Your task to perform on an android device: open app "Upside-Cash back on gas & food" (install if not already installed) and enter user name: "transatlantic@gmail.com" and password: "experiences" Image 0: 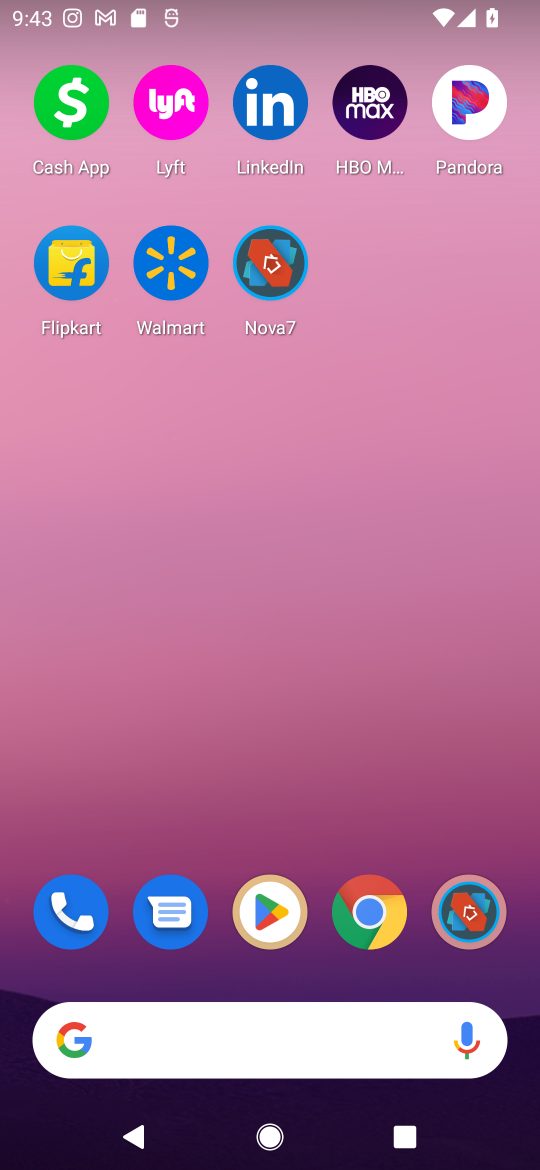
Step 0: click (259, 927)
Your task to perform on an android device: open app "Upside-Cash back on gas & food" (install if not already installed) and enter user name: "transatlantic@gmail.com" and password: "experiences" Image 1: 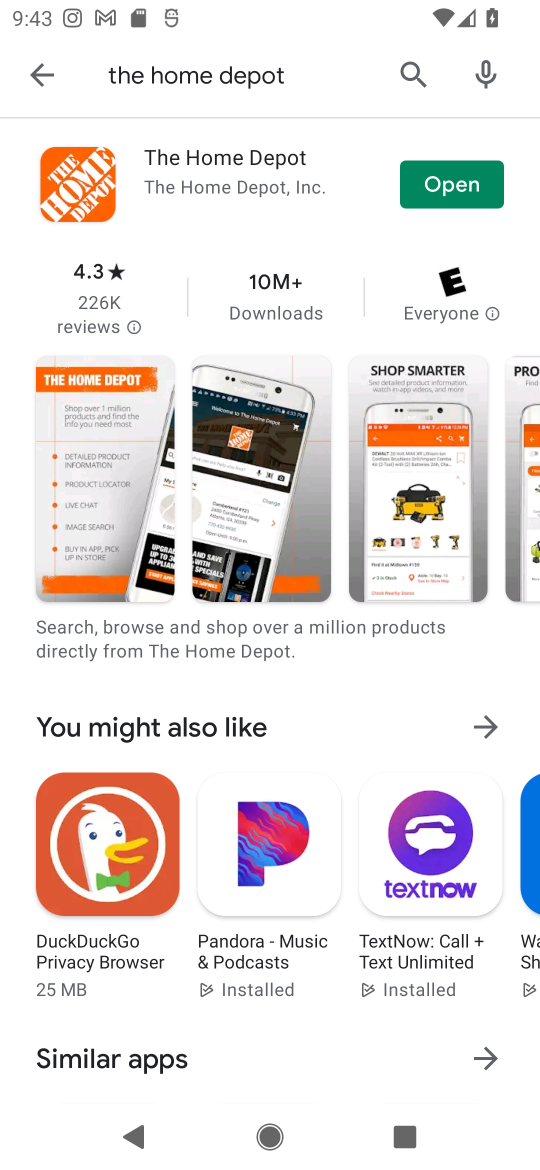
Step 1: click (469, 180)
Your task to perform on an android device: open app "Upside-Cash back on gas & food" (install if not already installed) and enter user name: "transatlantic@gmail.com" and password: "experiences" Image 2: 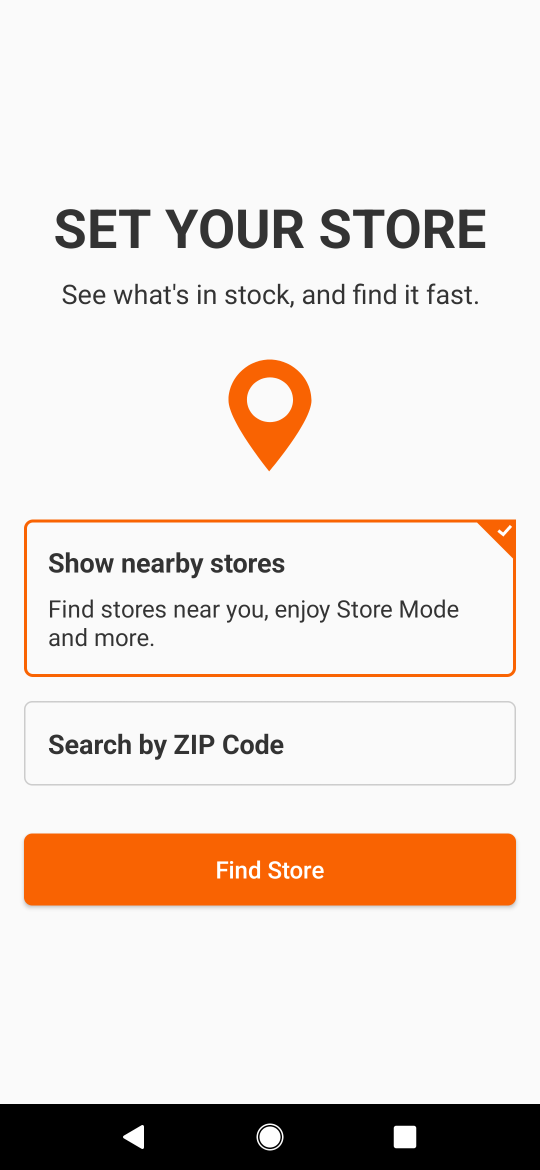
Step 2: press home button
Your task to perform on an android device: open app "Upside-Cash back on gas & food" (install if not already installed) and enter user name: "transatlantic@gmail.com" and password: "experiences" Image 3: 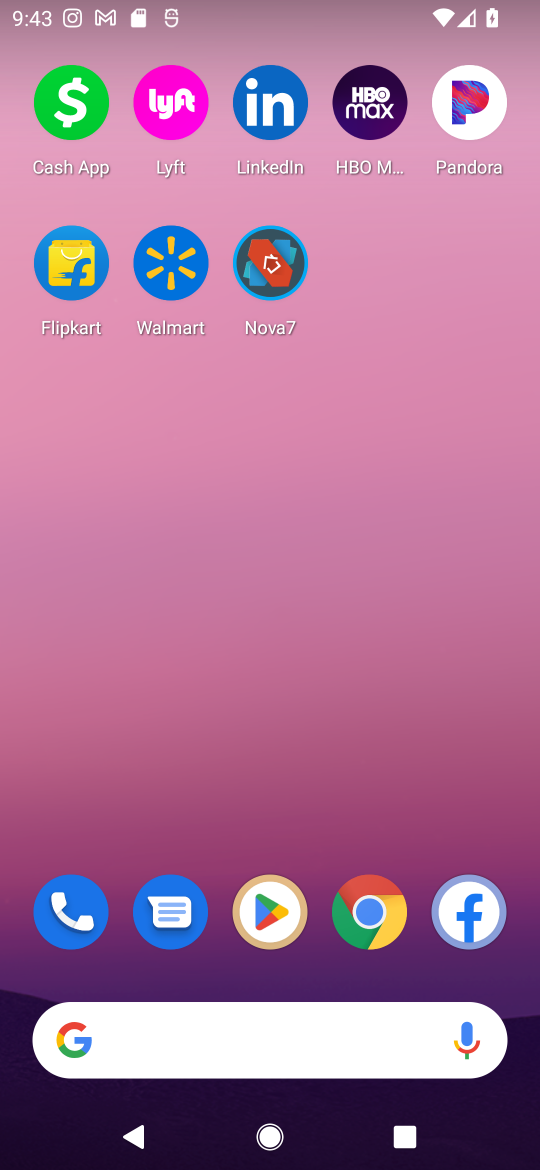
Step 3: click (271, 904)
Your task to perform on an android device: open app "Upside-Cash back on gas & food" (install if not already installed) and enter user name: "transatlantic@gmail.com" and password: "experiences" Image 4: 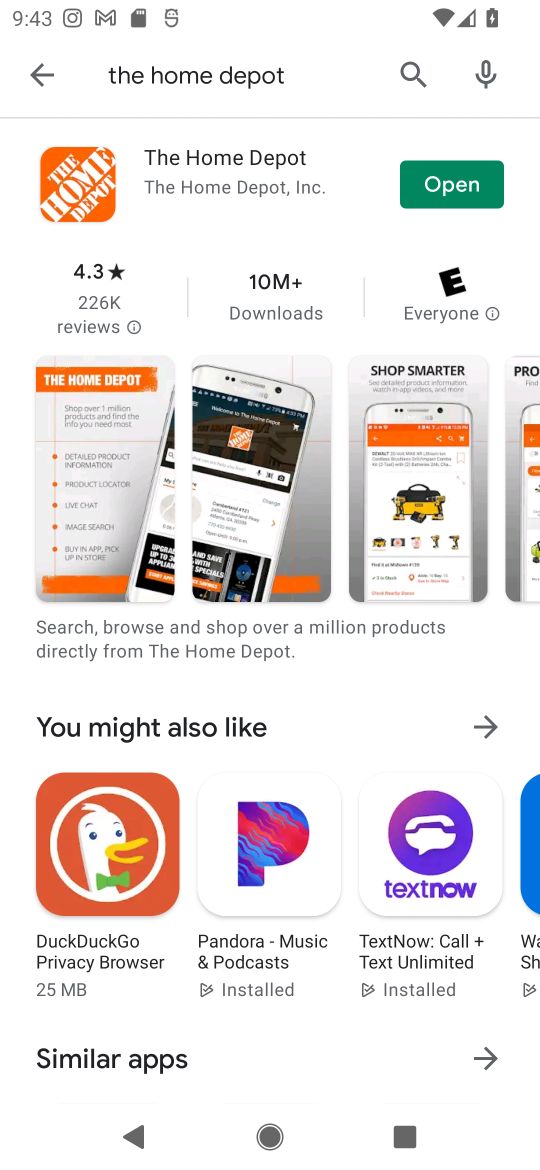
Step 4: click (404, 66)
Your task to perform on an android device: open app "Upside-Cash back on gas & food" (install if not already installed) and enter user name: "transatlantic@gmail.com" and password: "experiences" Image 5: 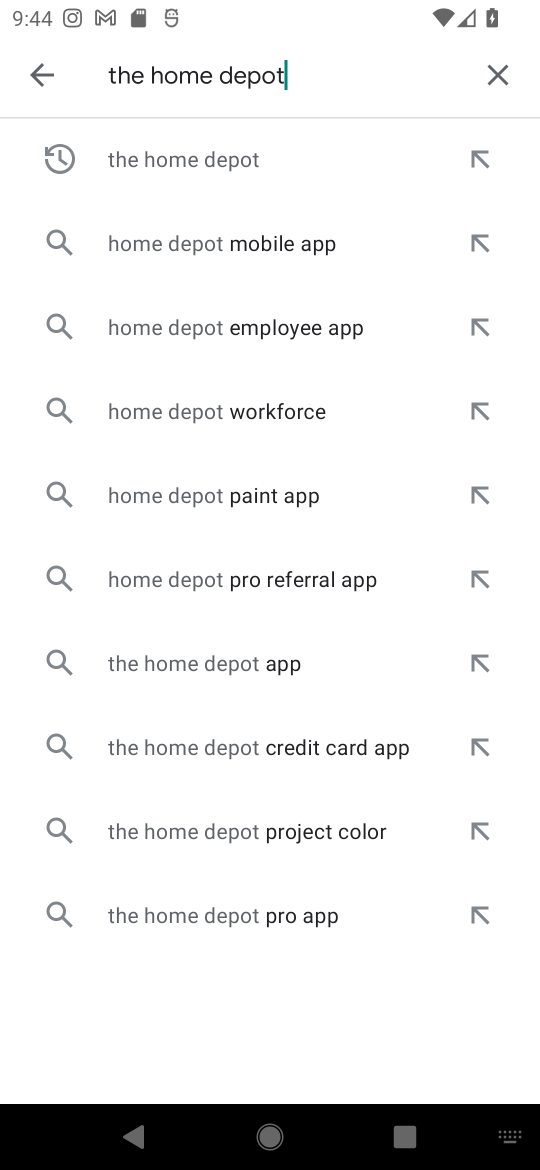
Step 5: click (494, 64)
Your task to perform on an android device: open app "Upside-Cash back on gas & food" (install if not already installed) and enter user name: "transatlantic@gmail.com" and password: "experiences" Image 6: 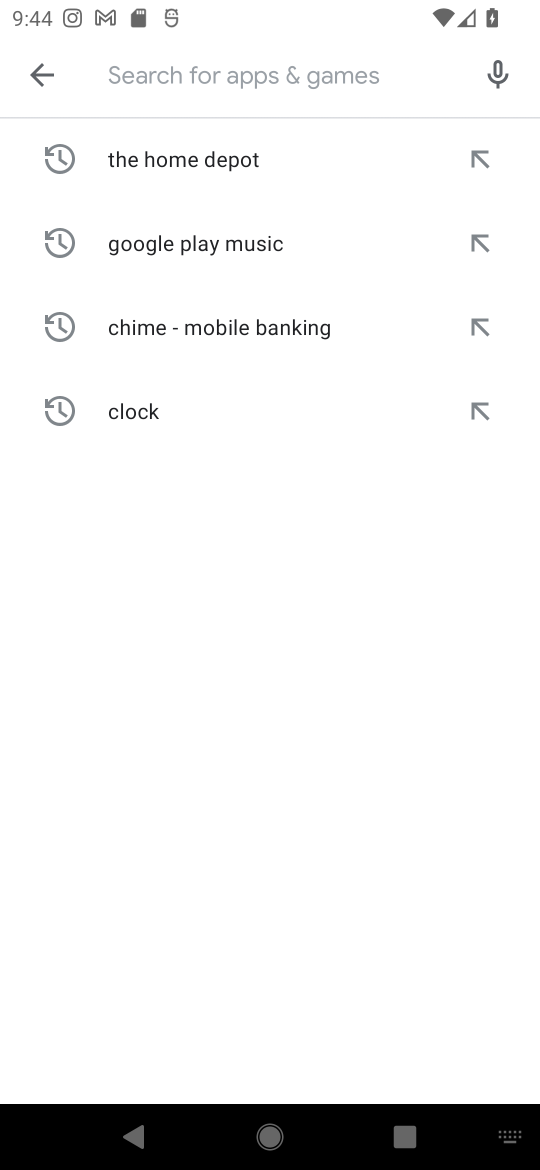
Step 6: type "Upside-Cash back on gas & food"
Your task to perform on an android device: open app "Upside-Cash back on gas & food" (install if not already installed) and enter user name: "transatlantic@gmail.com" and password: "experiences" Image 7: 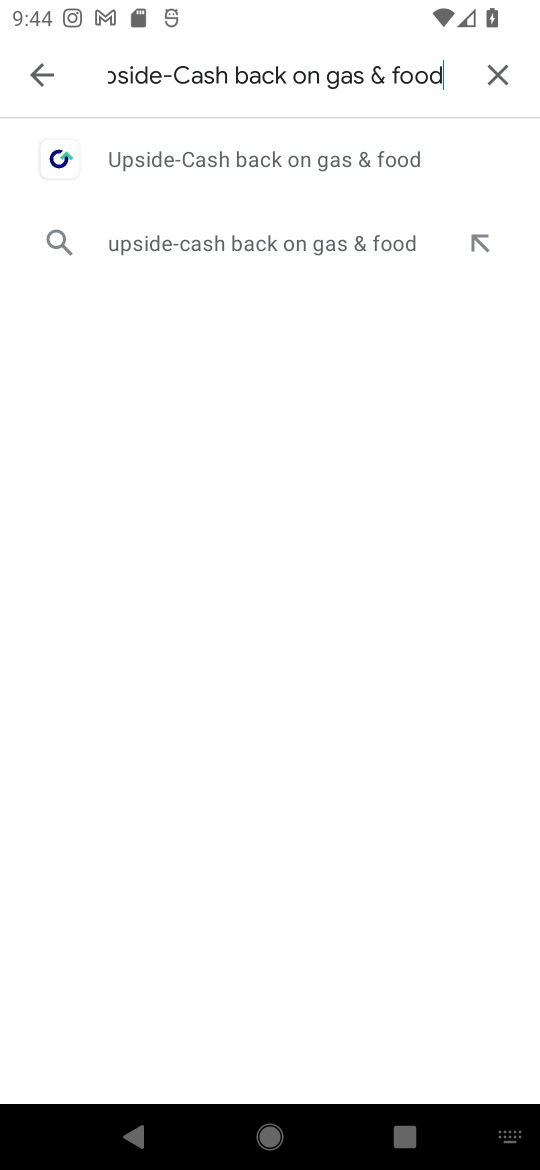
Step 7: click (396, 154)
Your task to perform on an android device: open app "Upside-Cash back on gas & food" (install if not already installed) and enter user name: "transatlantic@gmail.com" and password: "experiences" Image 8: 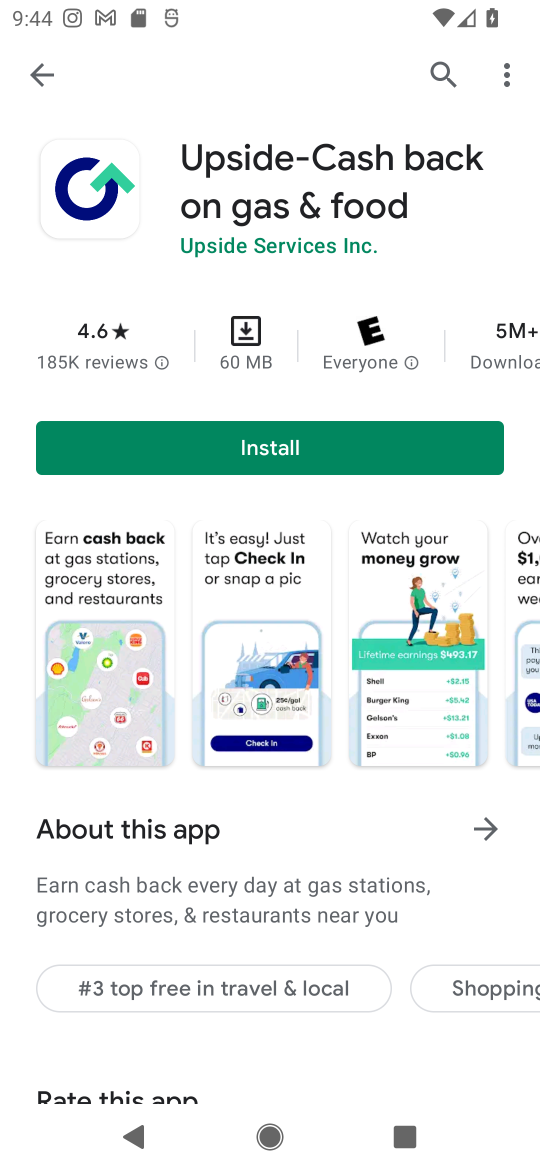
Step 8: click (266, 443)
Your task to perform on an android device: open app "Upside-Cash back on gas & food" (install if not already installed) and enter user name: "transatlantic@gmail.com" and password: "experiences" Image 9: 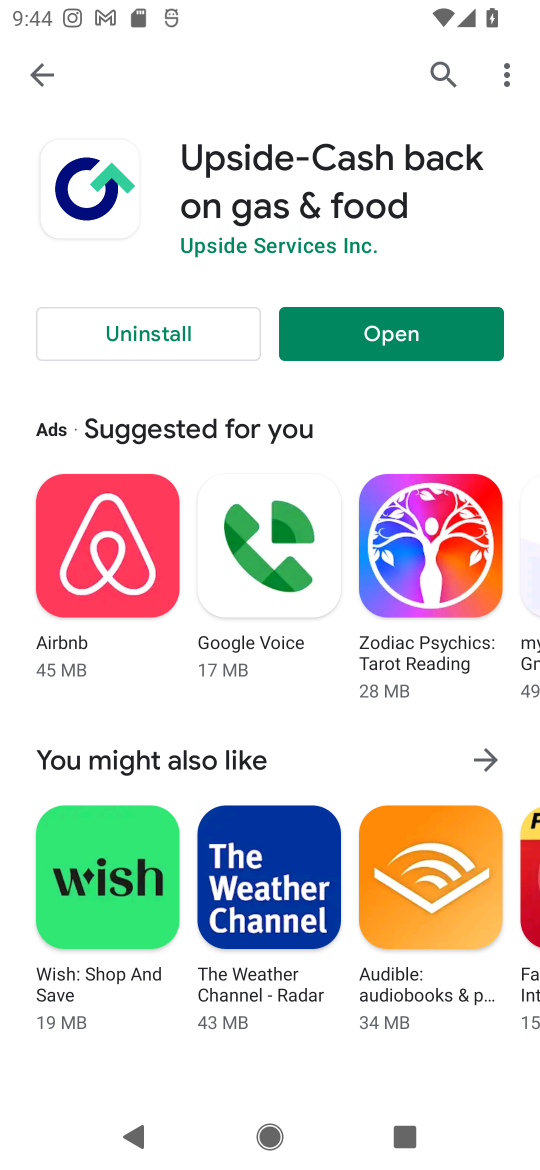
Step 9: click (365, 332)
Your task to perform on an android device: open app "Upside-Cash back on gas & food" (install if not already installed) and enter user name: "transatlantic@gmail.com" and password: "experiences" Image 10: 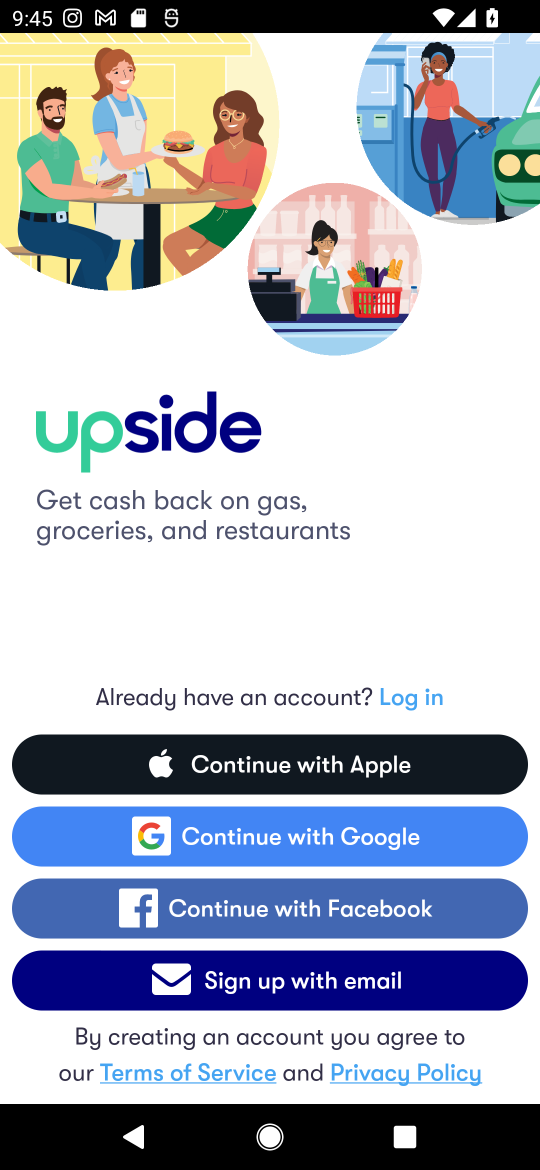
Step 10: click (269, 981)
Your task to perform on an android device: open app "Upside-Cash back on gas & food" (install if not already installed) and enter user name: "transatlantic@gmail.com" and password: "experiences" Image 11: 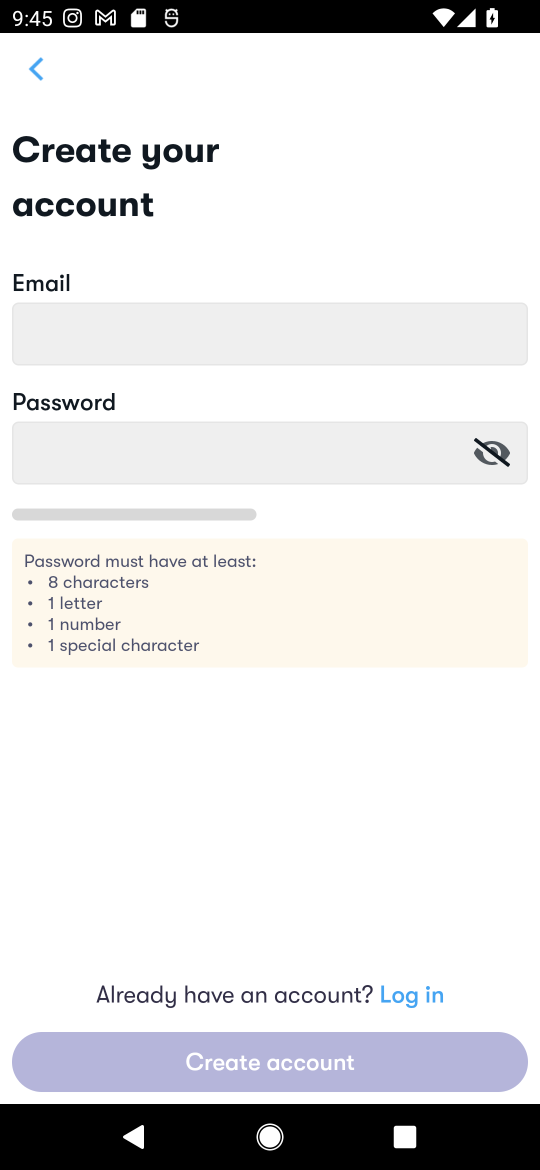
Step 11: click (127, 341)
Your task to perform on an android device: open app "Upside-Cash back on gas & food" (install if not already installed) and enter user name: "transatlantic@gmail.com" and password: "experiences" Image 12: 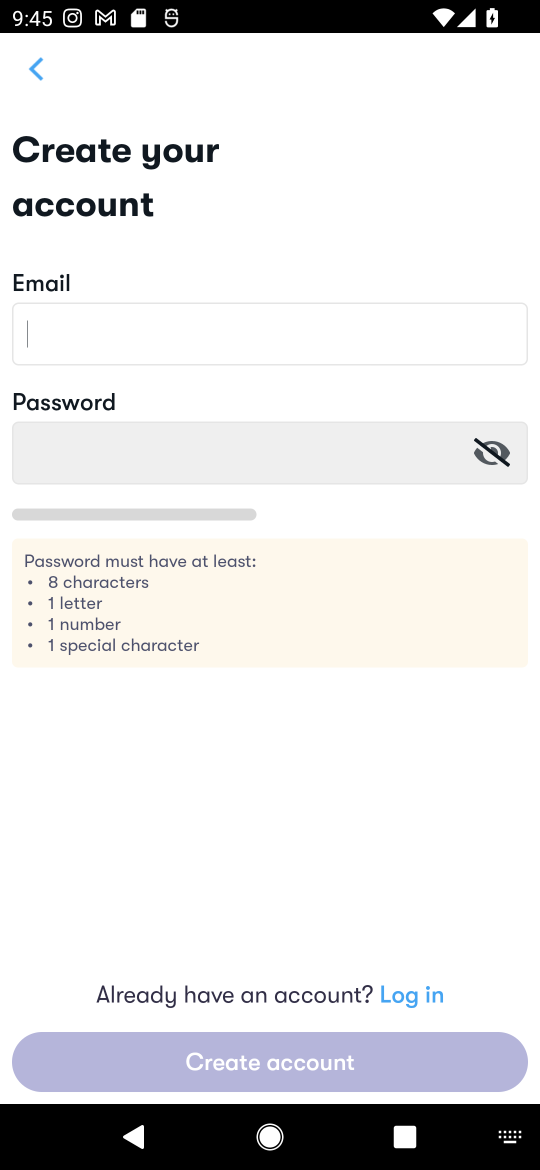
Step 12: type "transatlantic@gmail.com"
Your task to perform on an android device: open app "Upside-Cash back on gas & food" (install if not already installed) and enter user name: "transatlantic@gmail.com" and password: "experiences" Image 13: 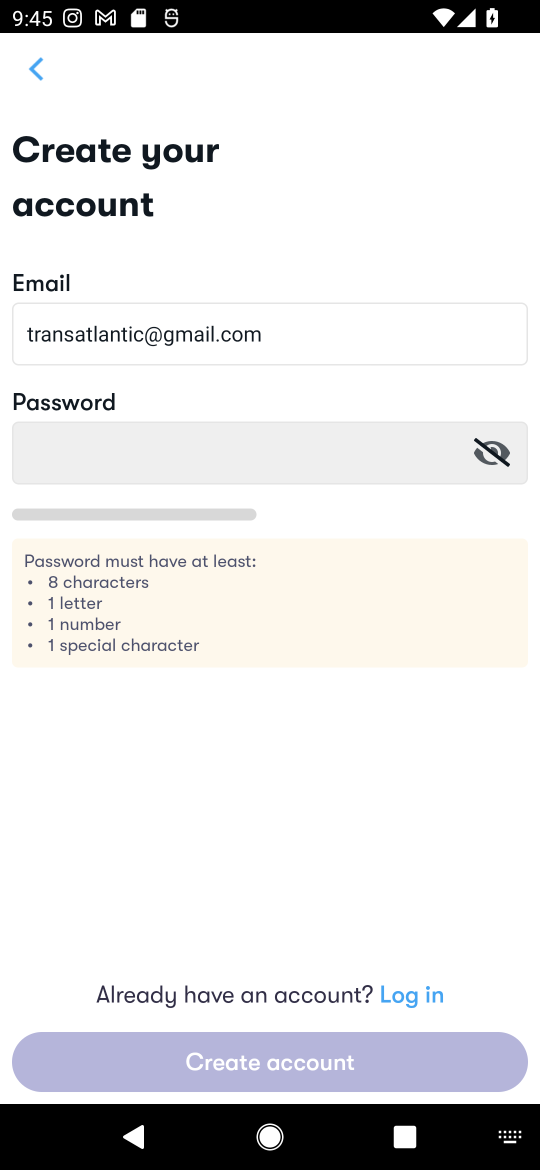
Step 13: click (133, 459)
Your task to perform on an android device: open app "Upside-Cash back on gas & food" (install if not already installed) and enter user name: "transatlantic@gmail.com" and password: "experiences" Image 14: 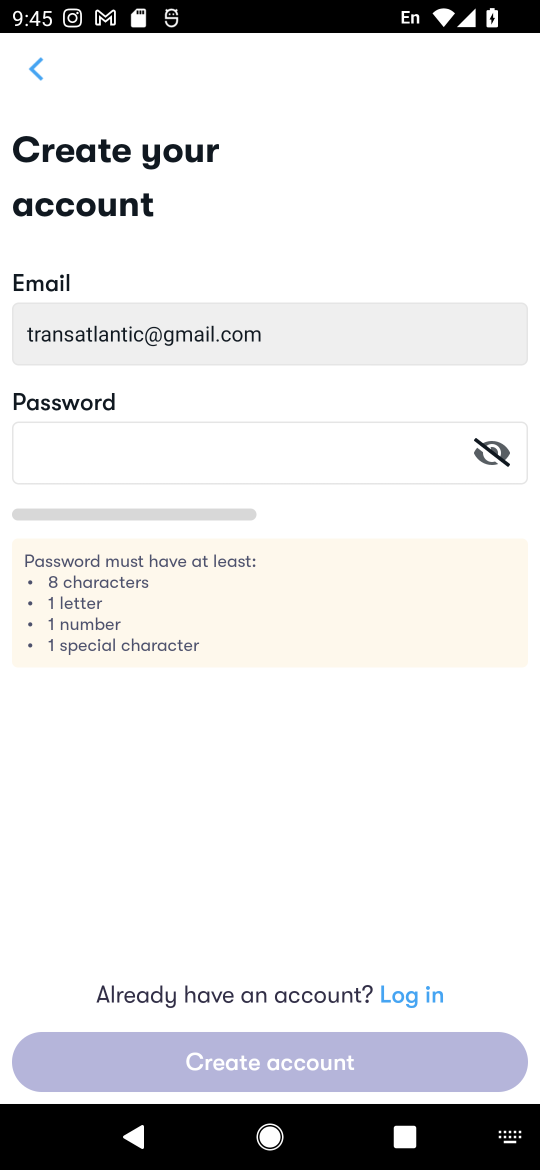
Step 14: type "experiences"
Your task to perform on an android device: open app "Upside-Cash back on gas & food" (install if not already installed) and enter user name: "transatlantic@gmail.com" and password: "experiences" Image 15: 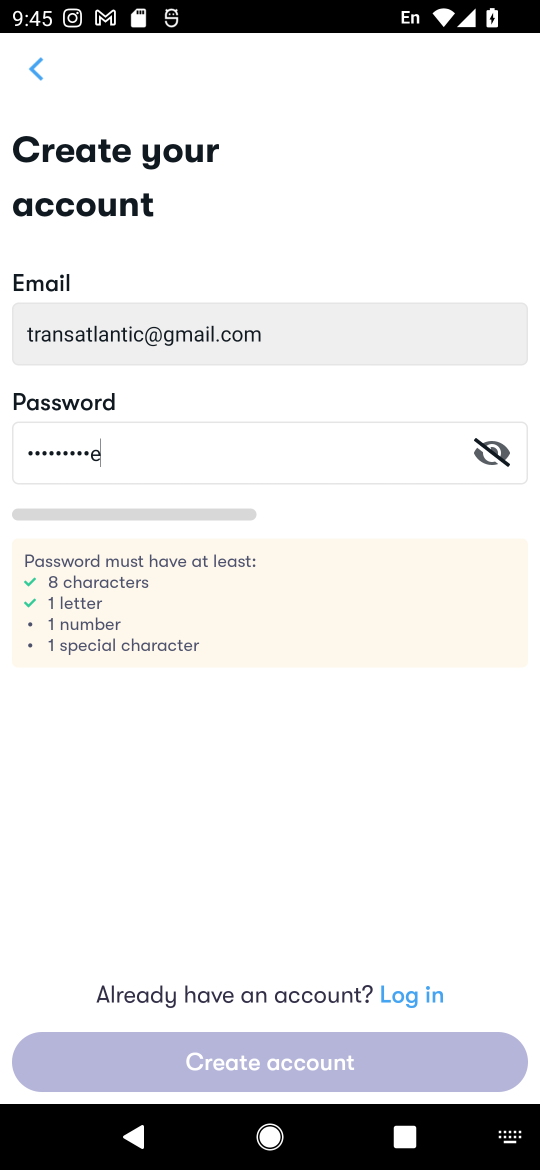
Step 15: type ""
Your task to perform on an android device: open app "Upside-Cash back on gas & food" (install if not already installed) and enter user name: "transatlantic@gmail.com" and password: "experiences" Image 16: 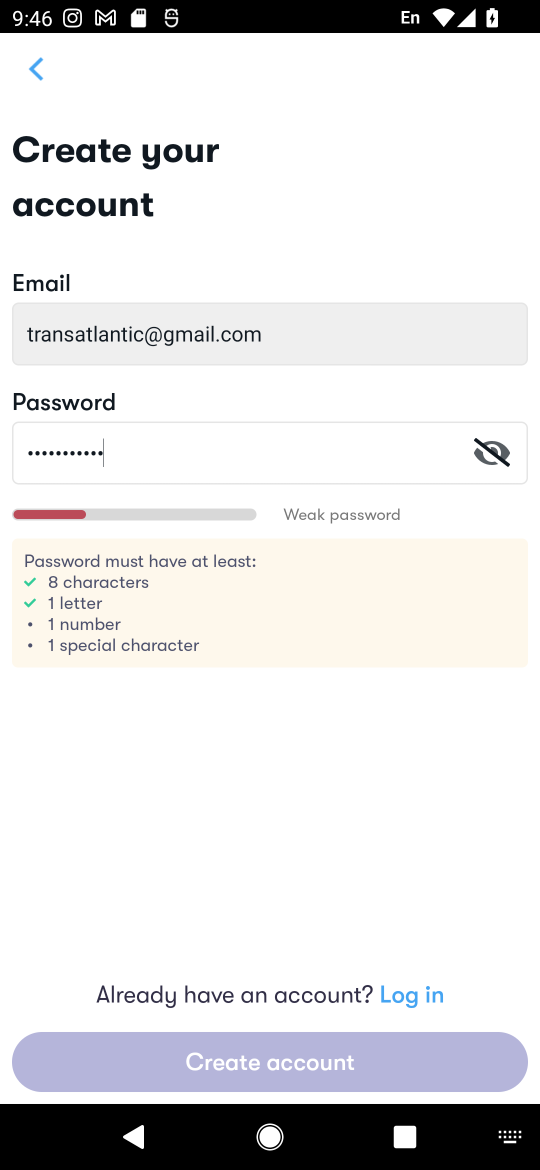
Step 16: task complete